Your task to perform on an android device: toggle sleep mode Image 0: 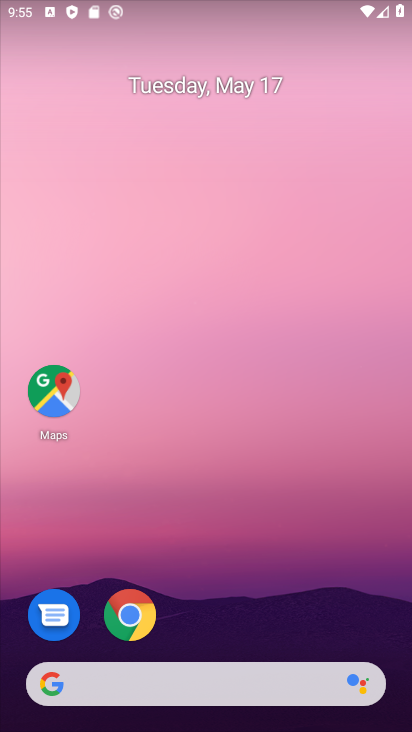
Step 0: drag from (394, 649) to (314, 67)
Your task to perform on an android device: toggle sleep mode Image 1: 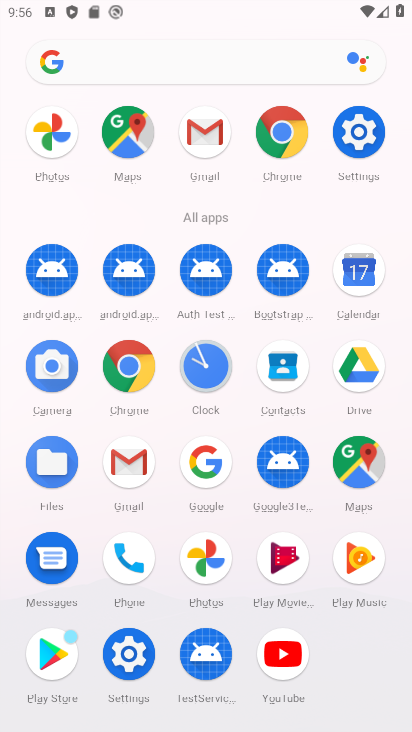
Step 1: click (128, 648)
Your task to perform on an android device: toggle sleep mode Image 2: 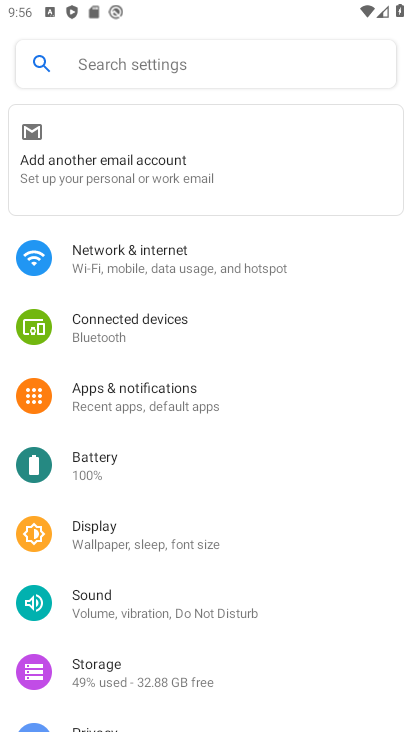
Step 2: click (118, 538)
Your task to perform on an android device: toggle sleep mode Image 3: 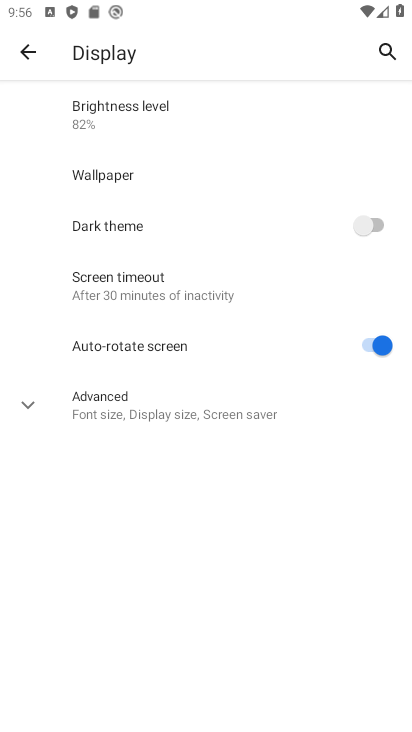
Step 3: click (24, 397)
Your task to perform on an android device: toggle sleep mode Image 4: 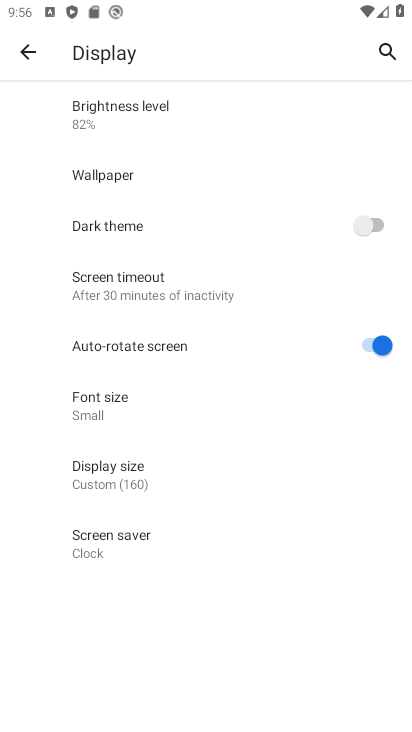
Step 4: task complete